Your task to perform on an android device: add a contact Image 0: 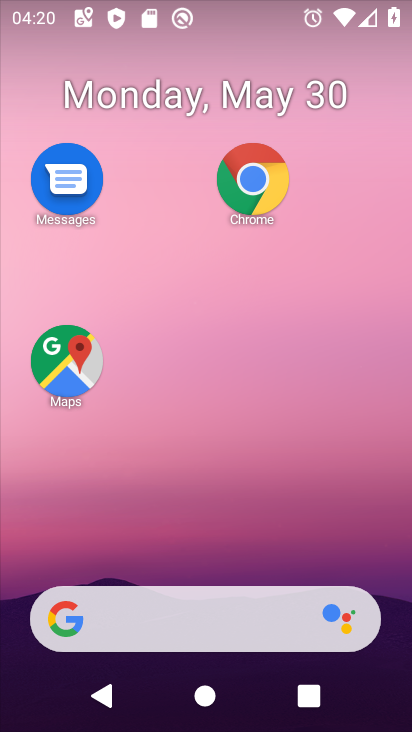
Step 0: drag from (176, 409) to (297, 0)
Your task to perform on an android device: add a contact Image 1: 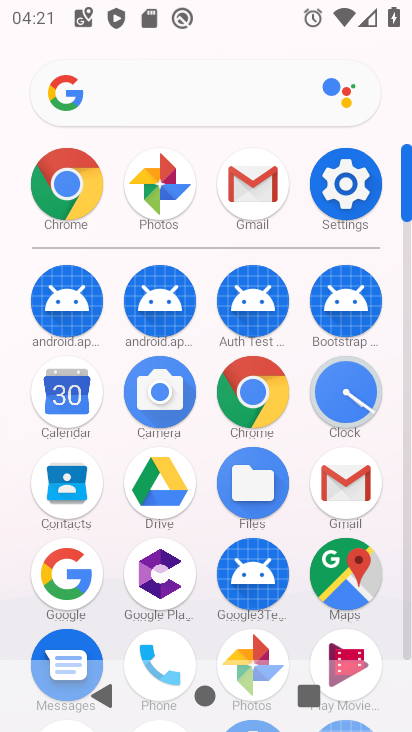
Step 1: drag from (190, 623) to (266, 318)
Your task to perform on an android device: add a contact Image 2: 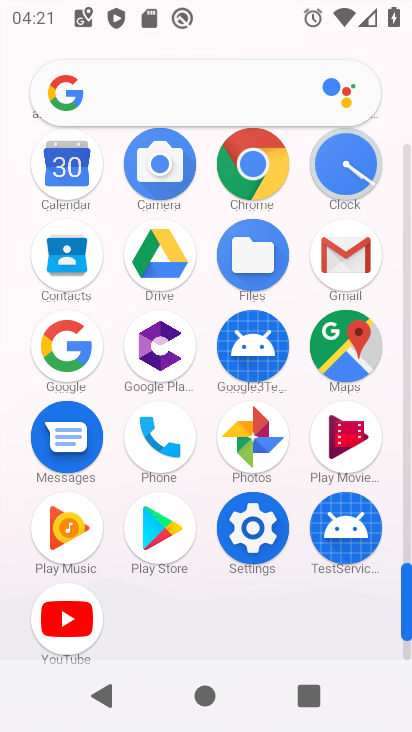
Step 2: click (80, 283)
Your task to perform on an android device: add a contact Image 3: 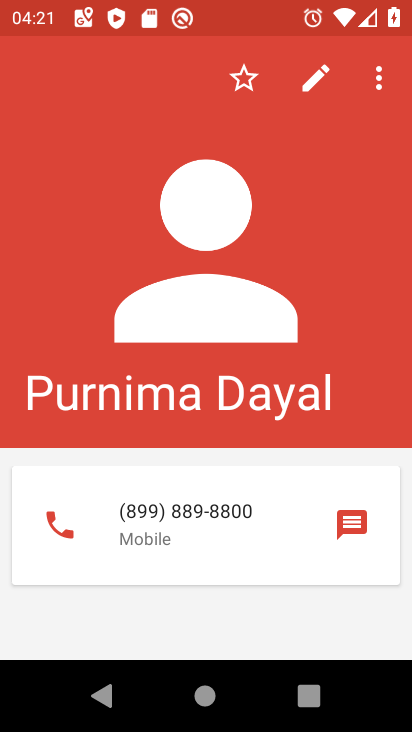
Step 3: press back button
Your task to perform on an android device: add a contact Image 4: 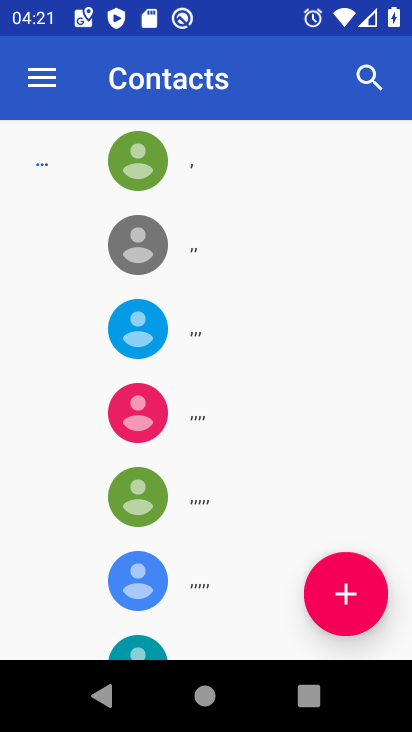
Step 4: click (338, 589)
Your task to perform on an android device: add a contact Image 5: 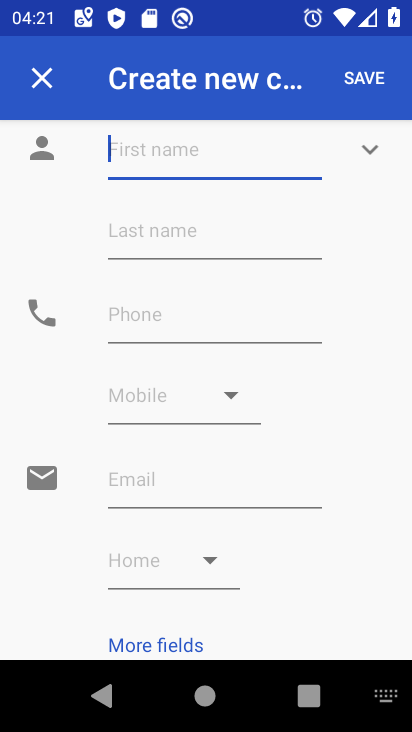
Step 5: type "Sanya"
Your task to perform on an android device: add a contact Image 6: 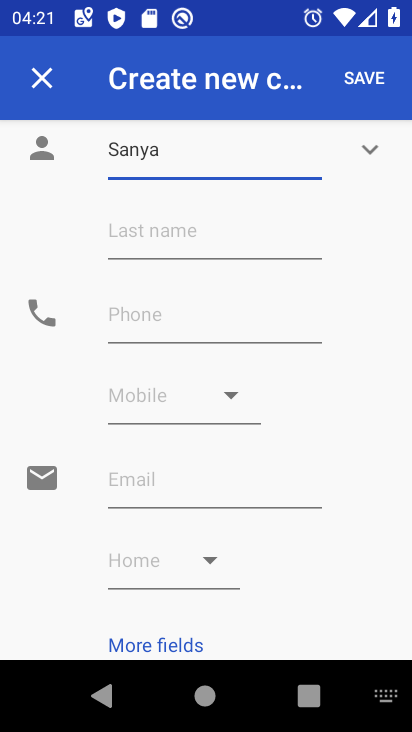
Step 6: click (211, 235)
Your task to perform on an android device: add a contact Image 7: 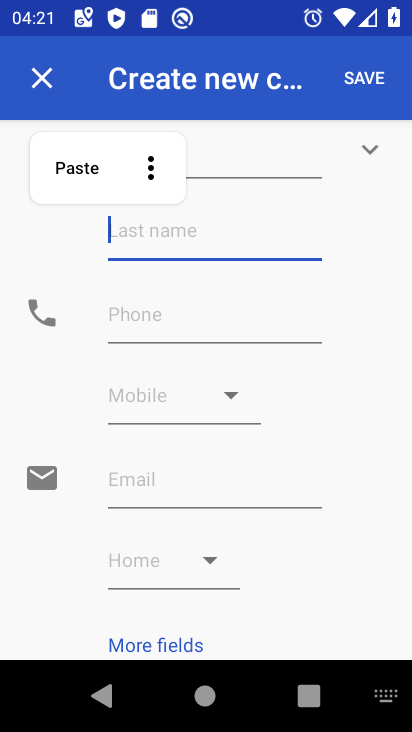
Step 7: type "nehwal"
Your task to perform on an android device: add a contact Image 8: 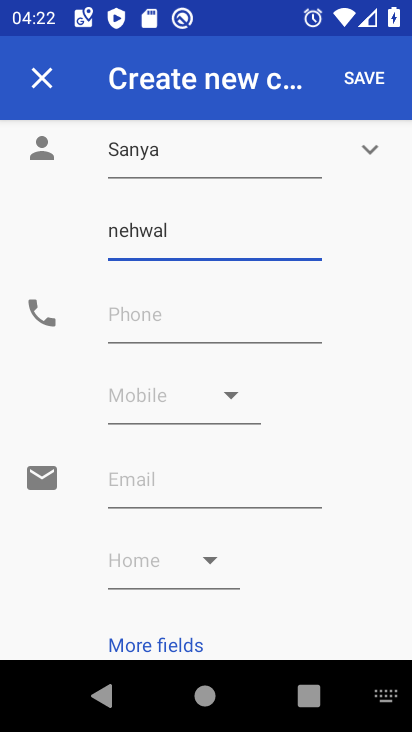
Step 8: click (197, 327)
Your task to perform on an android device: add a contact Image 9: 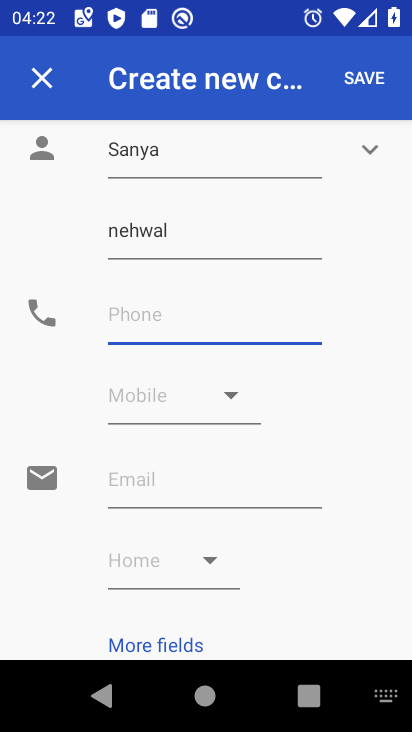
Step 9: type "90989099890"
Your task to perform on an android device: add a contact Image 10: 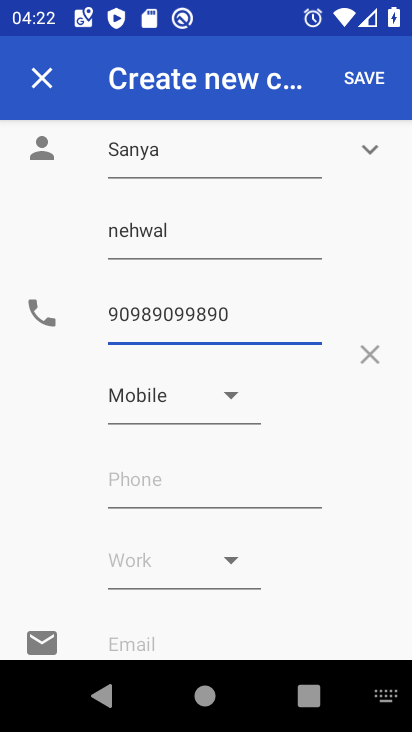
Step 10: click (365, 77)
Your task to perform on an android device: add a contact Image 11: 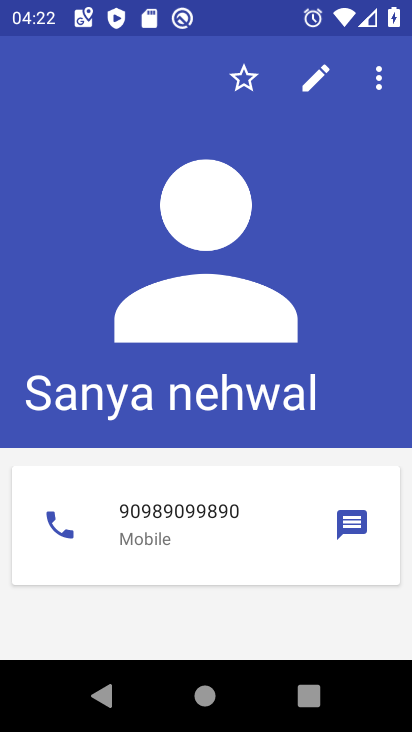
Step 11: task complete